Your task to perform on an android device: show emergency info Image 0: 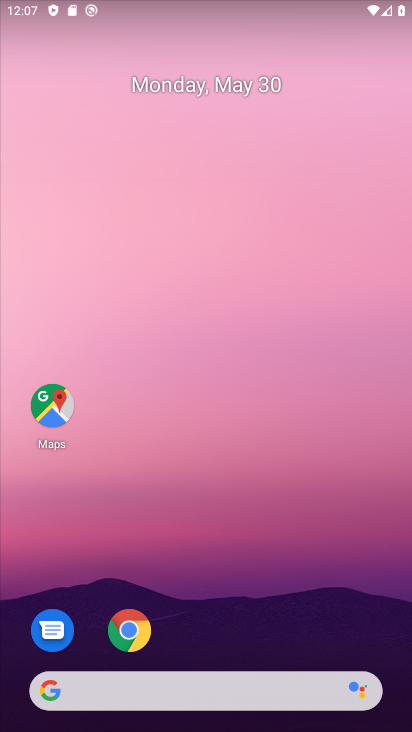
Step 0: press home button
Your task to perform on an android device: show emergency info Image 1: 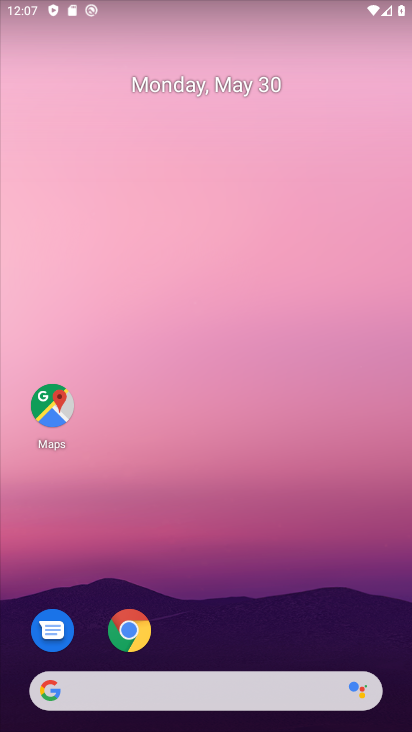
Step 1: drag from (225, 690) to (284, 10)
Your task to perform on an android device: show emergency info Image 2: 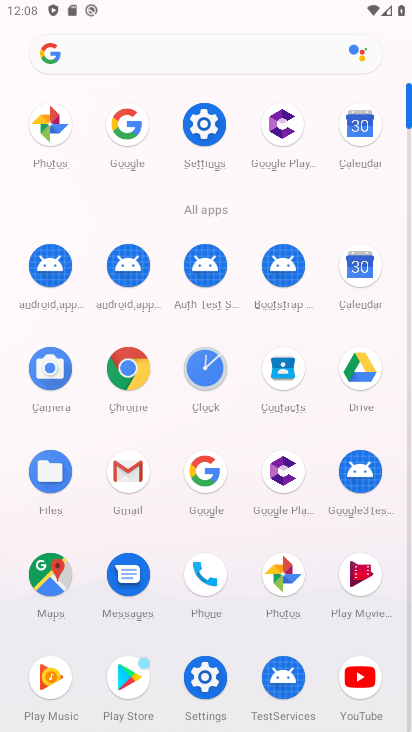
Step 2: click (203, 126)
Your task to perform on an android device: show emergency info Image 3: 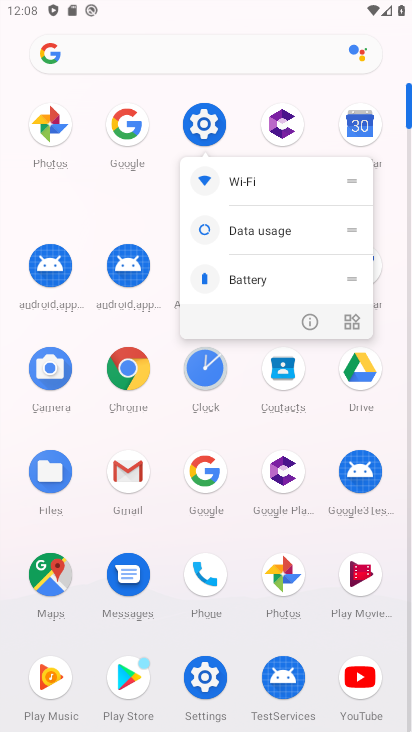
Step 3: click (200, 119)
Your task to perform on an android device: show emergency info Image 4: 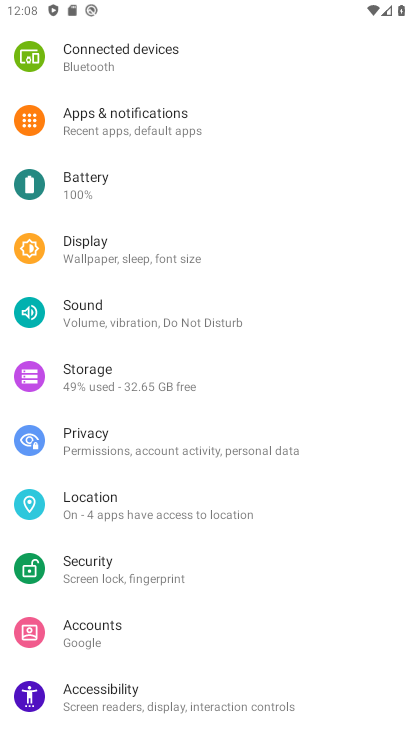
Step 4: drag from (227, 614) to (310, 73)
Your task to perform on an android device: show emergency info Image 5: 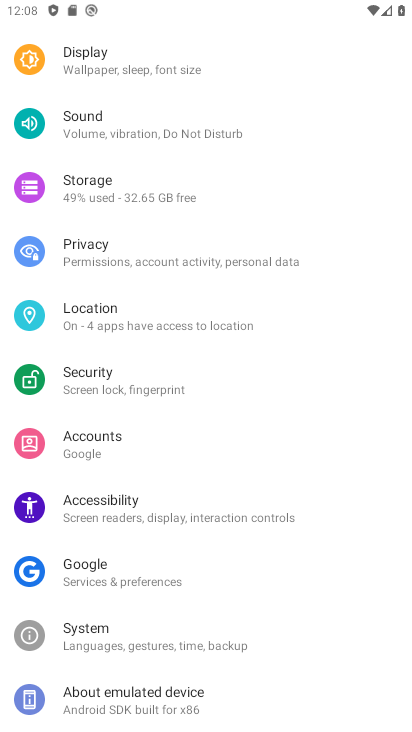
Step 5: click (159, 704)
Your task to perform on an android device: show emergency info Image 6: 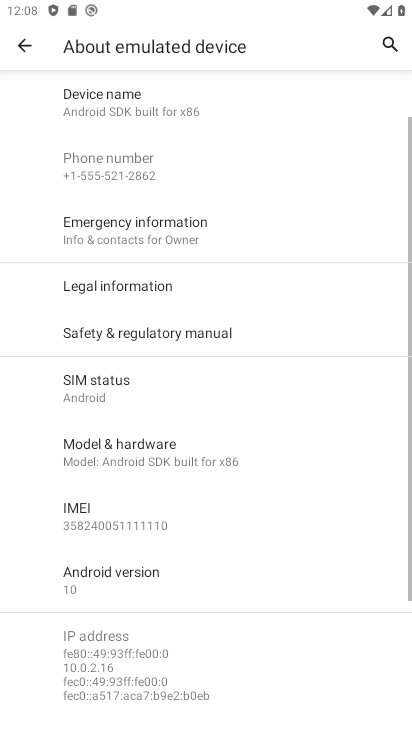
Step 6: click (189, 237)
Your task to perform on an android device: show emergency info Image 7: 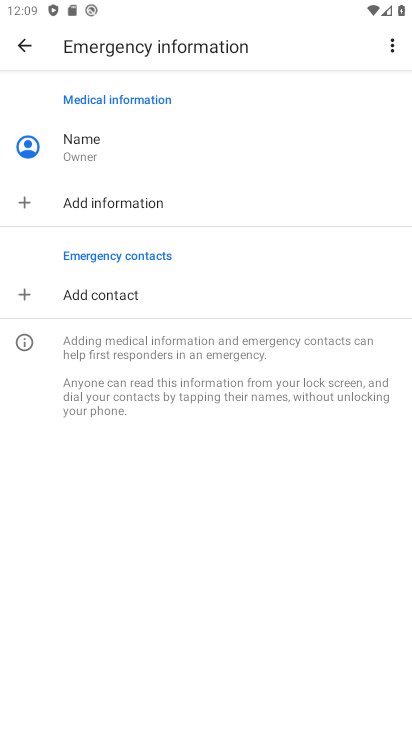
Step 7: task complete